Your task to perform on an android device: see creations saved in the google photos Image 0: 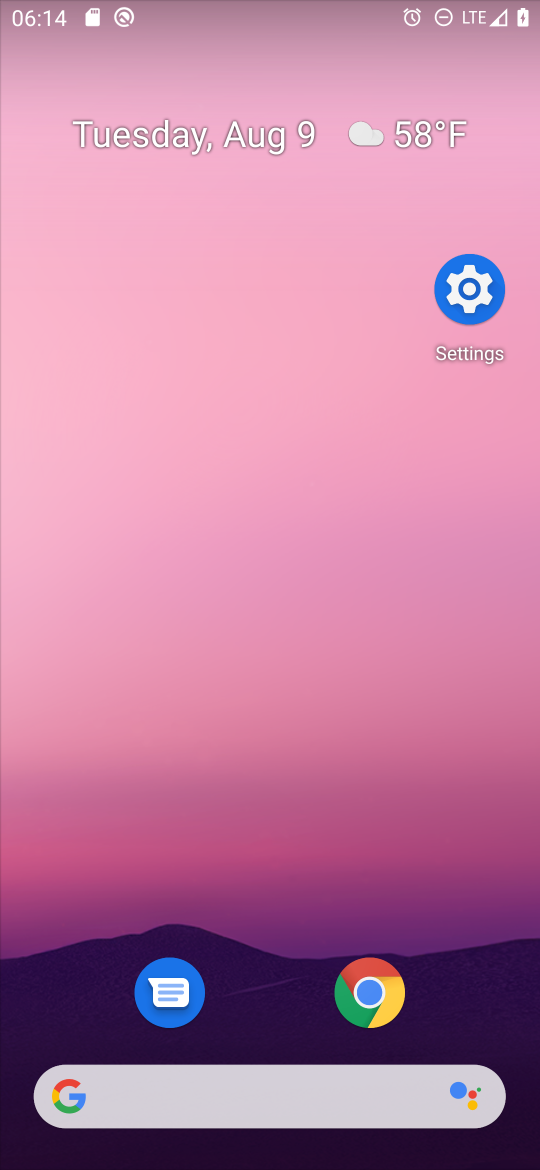
Step 0: drag from (295, 1072) to (418, 7)
Your task to perform on an android device: see creations saved in the google photos Image 1: 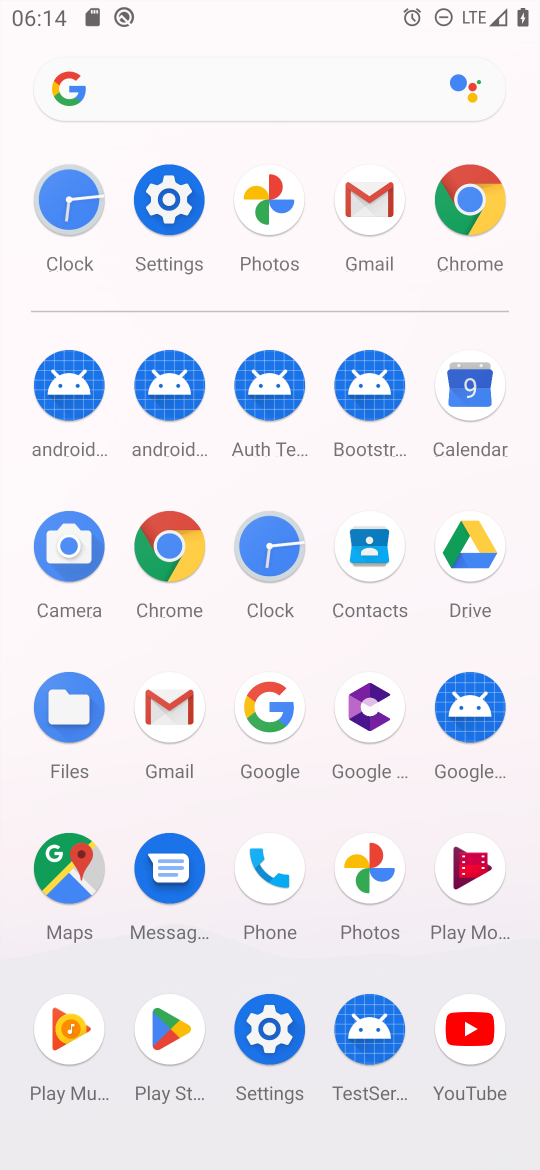
Step 1: click (372, 880)
Your task to perform on an android device: see creations saved in the google photos Image 2: 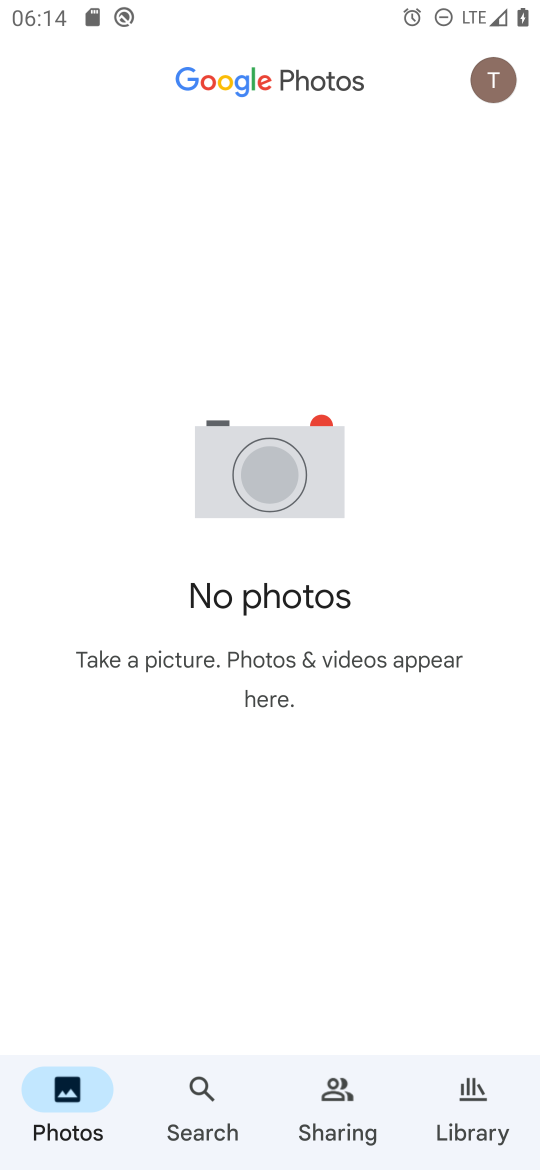
Step 2: task complete